Your task to perform on an android device: Go to wifi settings Image 0: 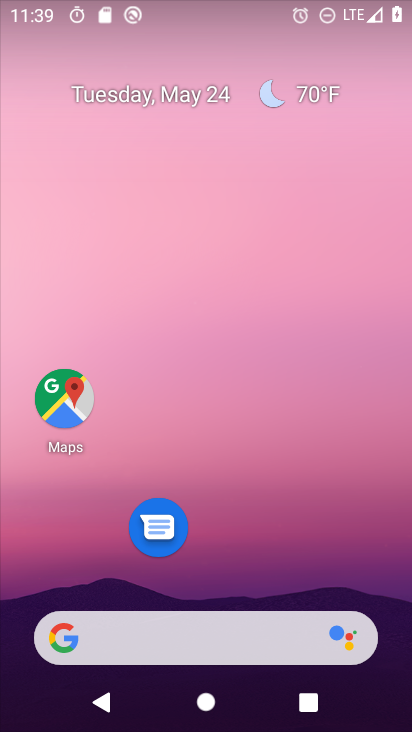
Step 0: drag from (273, 550) to (281, 81)
Your task to perform on an android device: Go to wifi settings Image 1: 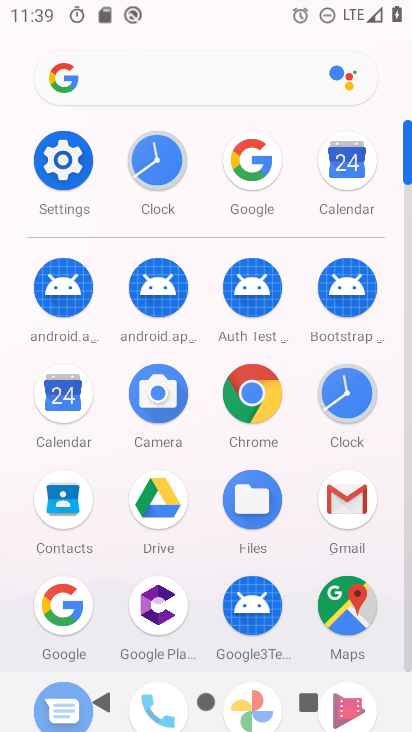
Step 1: click (50, 157)
Your task to perform on an android device: Go to wifi settings Image 2: 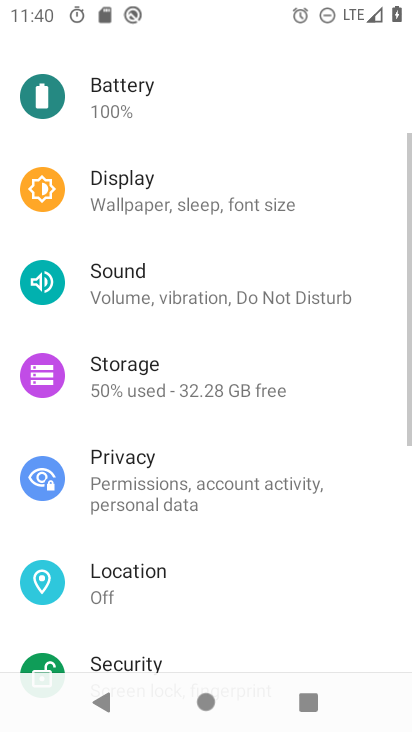
Step 2: drag from (195, 140) to (221, 598)
Your task to perform on an android device: Go to wifi settings Image 3: 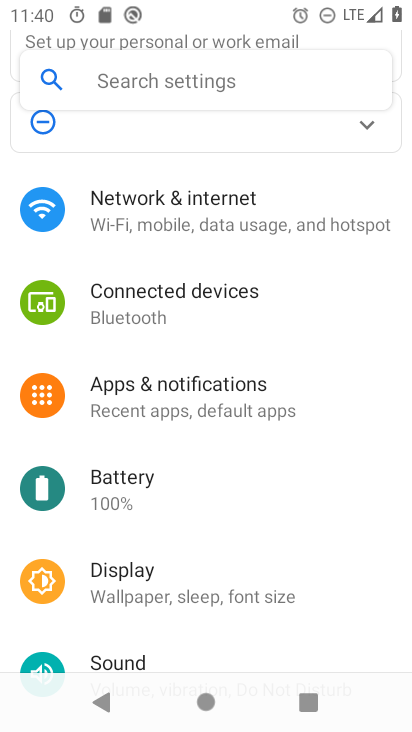
Step 3: click (184, 227)
Your task to perform on an android device: Go to wifi settings Image 4: 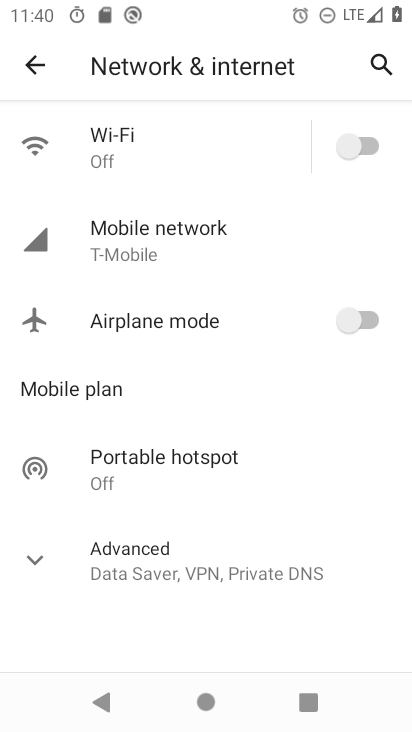
Step 4: click (353, 145)
Your task to perform on an android device: Go to wifi settings Image 5: 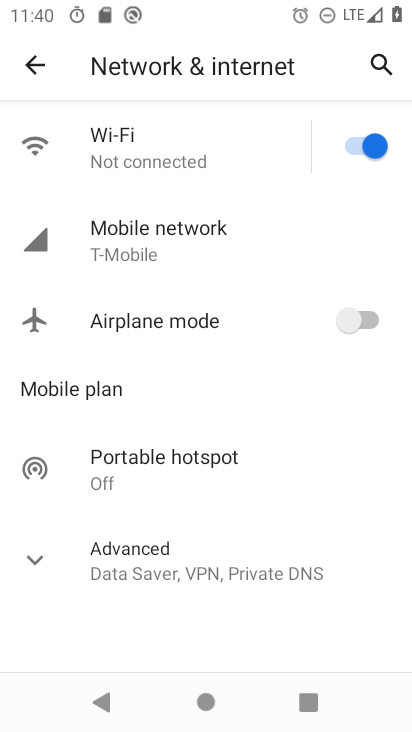
Step 5: click (154, 142)
Your task to perform on an android device: Go to wifi settings Image 6: 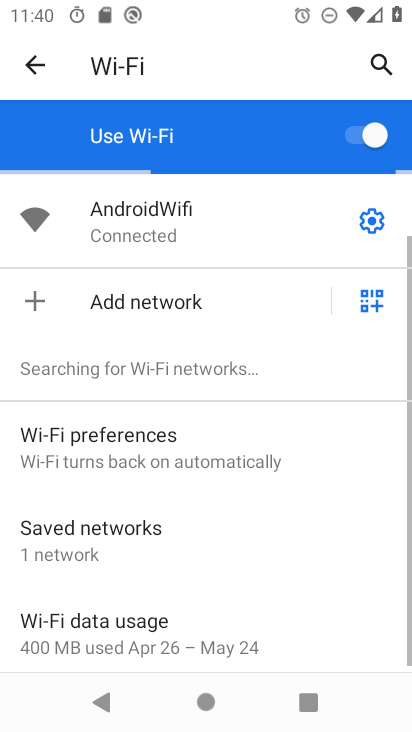
Step 6: click (148, 218)
Your task to perform on an android device: Go to wifi settings Image 7: 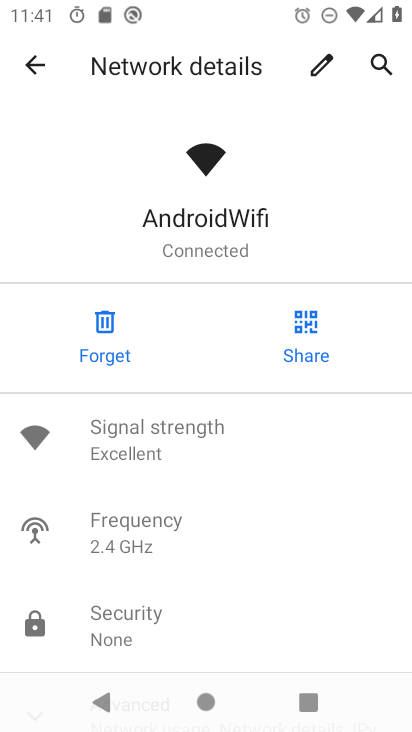
Step 7: task complete